Your task to perform on an android device: empty trash in the gmail app Image 0: 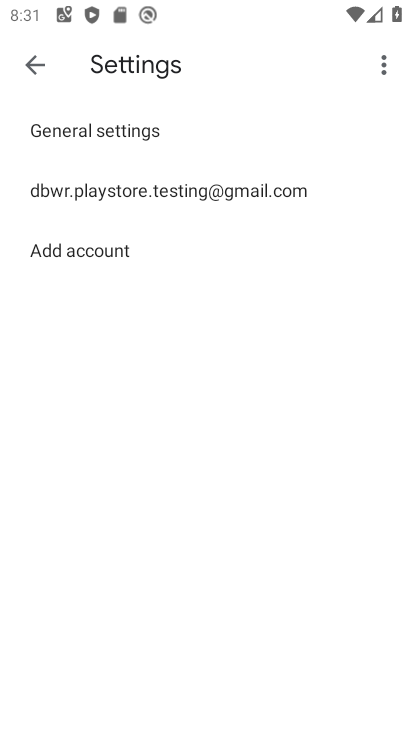
Step 0: press home button
Your task to perform on an android device: empty trash in the gmail app Image 1: 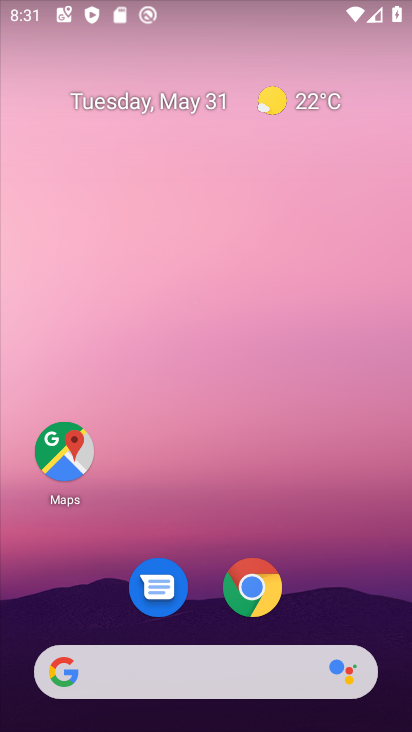
Step 1: drag from (232, 354) to (221, 32)
Your task to perform on an android device: empty trash in the gmail app Image 2: 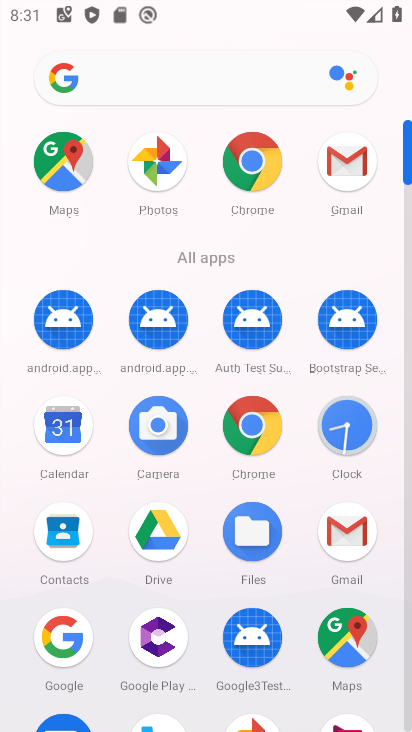
Step 2: click (336, 161)
Your task to perform on an android device: empty trash in the gmail app Image 3: 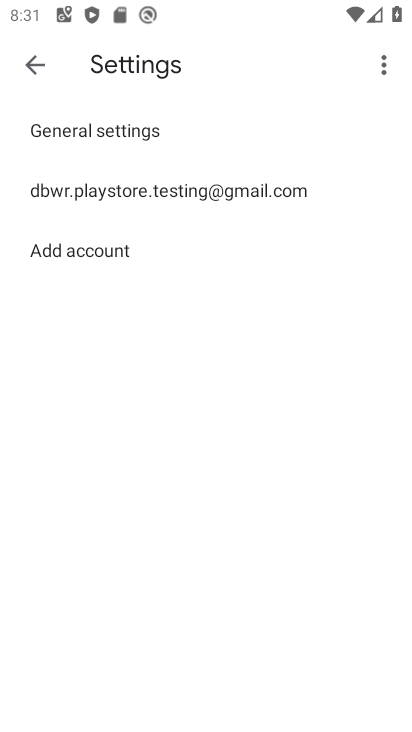
Step 3: click (37, 72)
Your task to perform on an android device: empty trash in the gmail app Image 4: 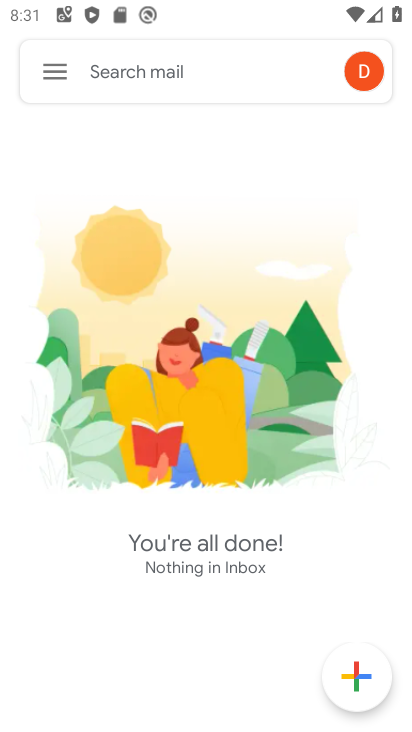
Step 4: click (62, 69)
Your task to perform on an android device: empty trash in the gmail app Image 5: 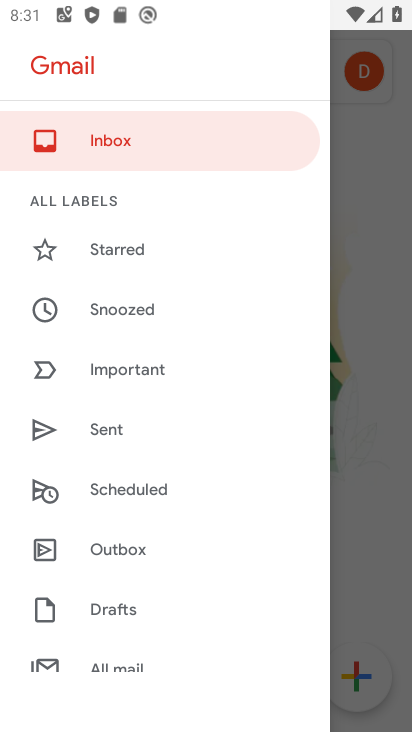
Step 5: drag from (112, 634) to (184, 118)
Your task to perform on an android device: empty trash in the gmail app Image 6: 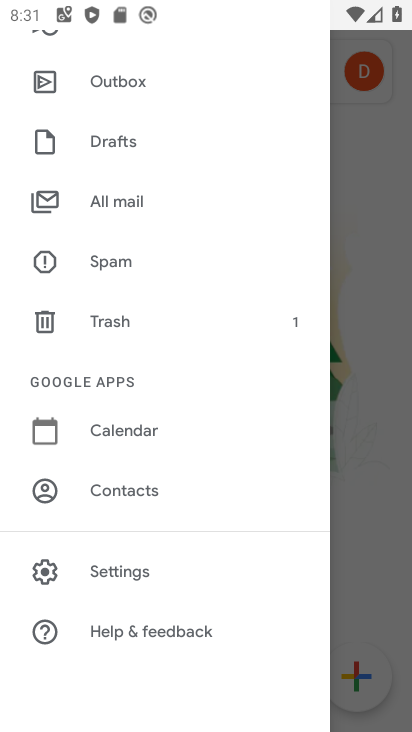
Step 6: click (159, 325)
Your task to perform on an android device: empty trash in the gmail app Image 7: 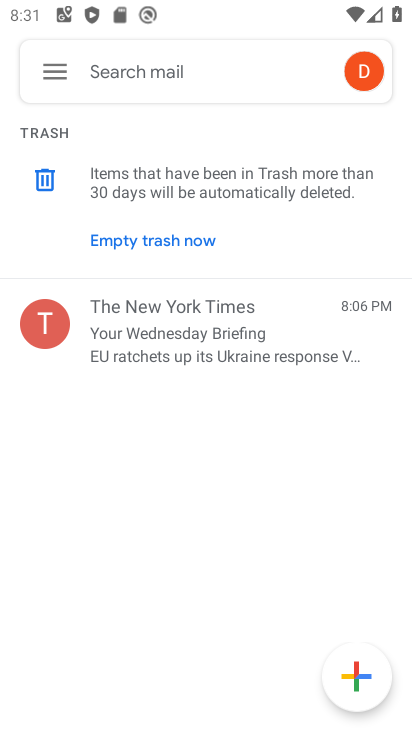
Step 7: click (177, 246)
Your task to perform on an android device: empty trash in the gmail app Image 8: 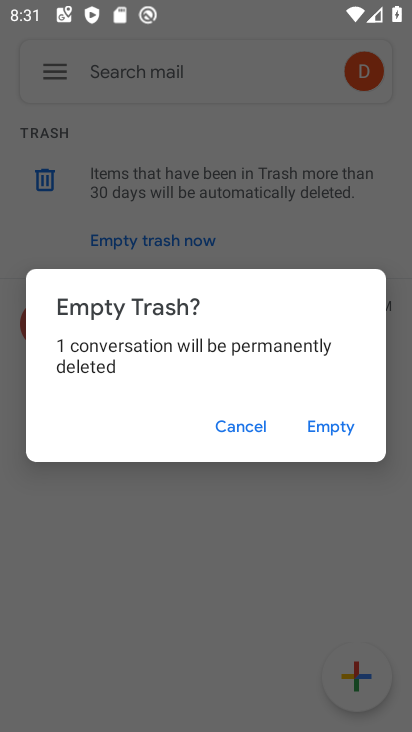
Step 8: click (319, 434)
Your task to perform on an android device: empty trash in the gmail app Image 9: 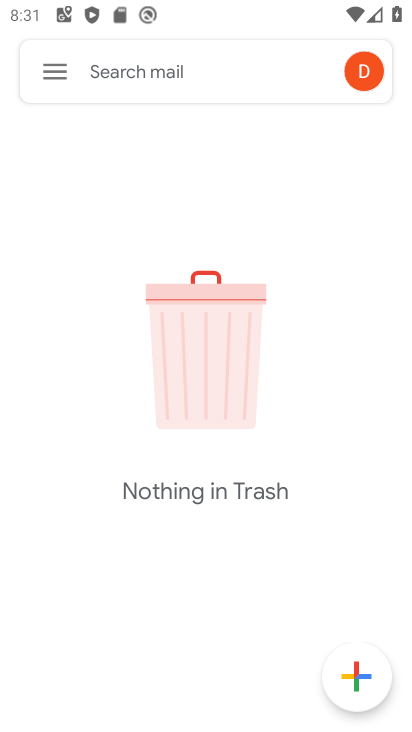
Step 9: task complete